Your task to perform on an android device: Check the weather Image 0: 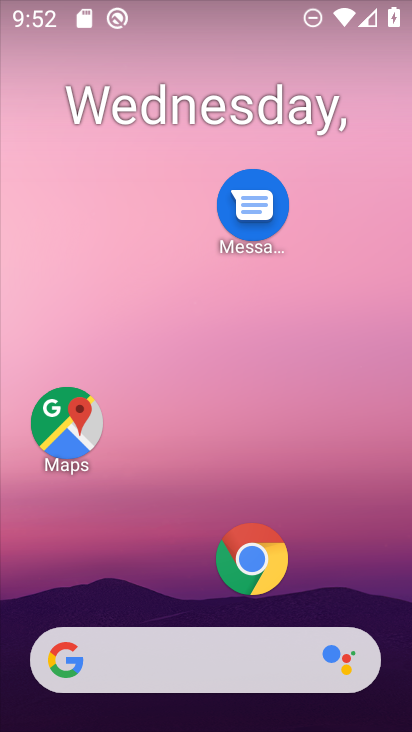
Step 0: drag from (210, 638) to (90, 52)
Your task to perform on an android device: Check the weather Image 1: 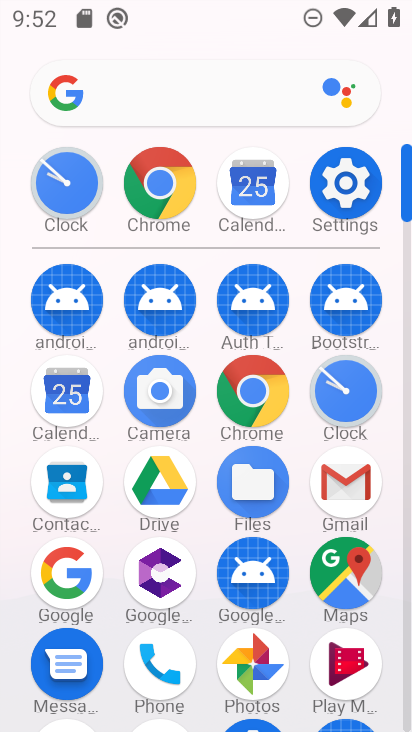
Step 1: click (65, 559)
Your task to perform on an android device: Check the weather Image 2: 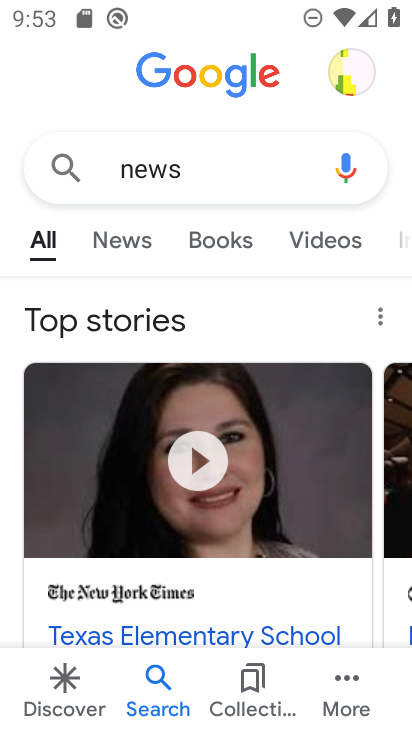
Step 2: click (222, 165)
Your task to perform on an android device: Check the weather Image 3: 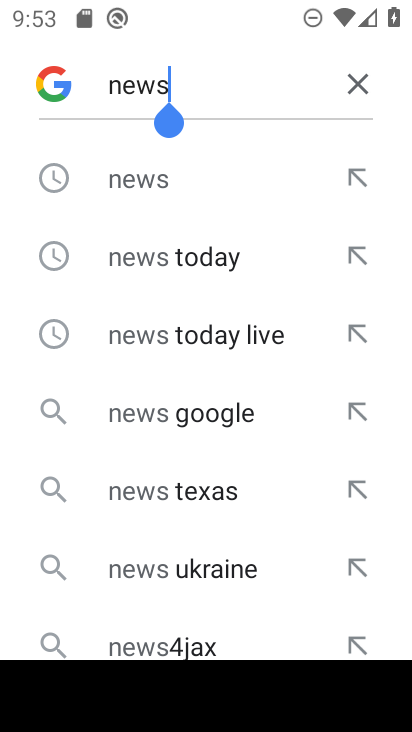
Step 3: click (364, 86)
Your task to perform on an android device: Check the weather Image 4: 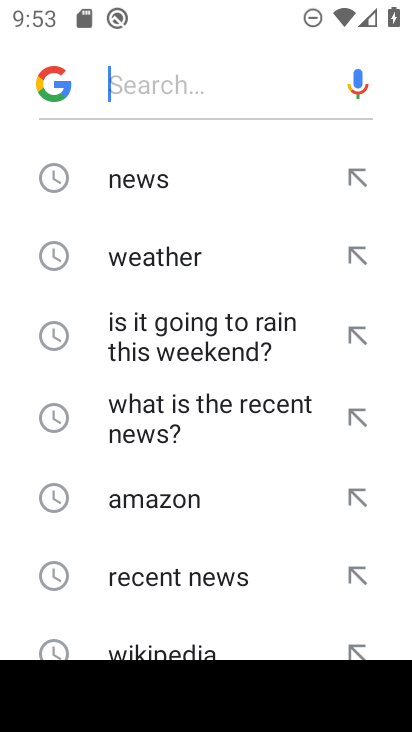
Step 4: click (181, 256)
Your task to perform on an android device: Check the weather Image 5: 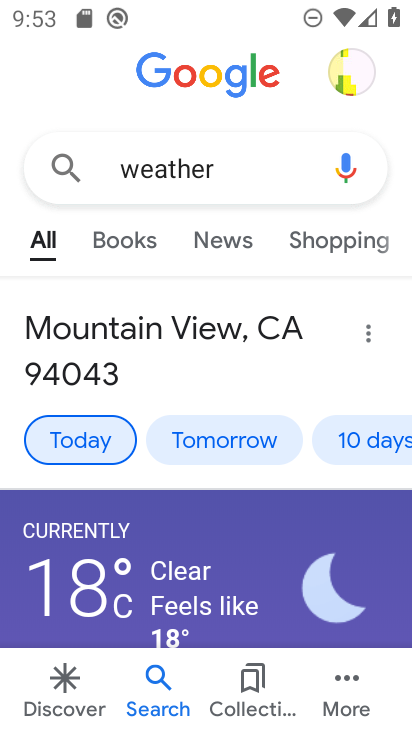
Step 5: task complete